Your task to perform on an android device: open app "Flipkart Online Shopping App" (install if not already installed) and enter user name: "fostered@gmail.com" and password: "negotiated" Image 0: 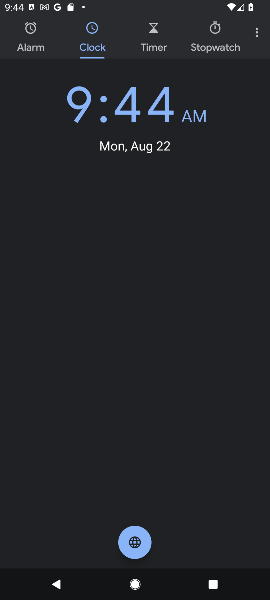
Step 0: press home button
Your task to perform on an android device: open app "Flipkart Online Shopping App" (install if not already installed) and enter user name: "fostered@gmail.com" and password: "negotiated" Image 1: 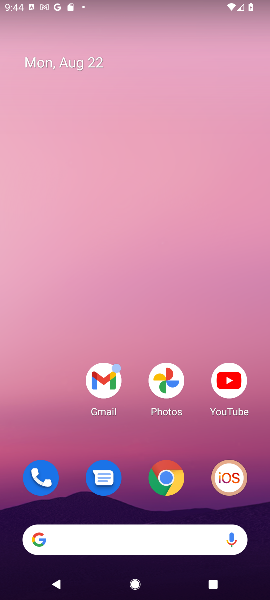
Step 1: drag from (211, 503) to (186, 3)
Your task to perform on an android device: open app "Flipkart Online Shopping App" (install if not already installed) and enter user name: "fostered@gmail.com" and password: "negotiated" Image 2: 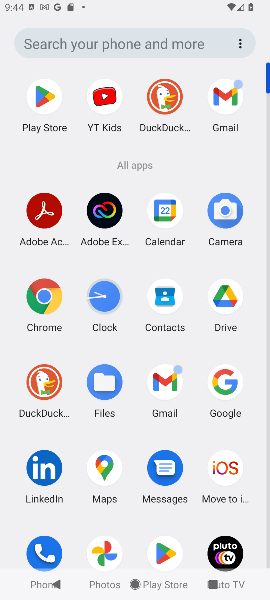
Step 2: click (29, 99)
Your task to perform on an android device: open app "Flipkart Online Shopping App" (install if not already installed) and enter user name: "fostered@gmail.com" and password: "negotiated" Image 3: 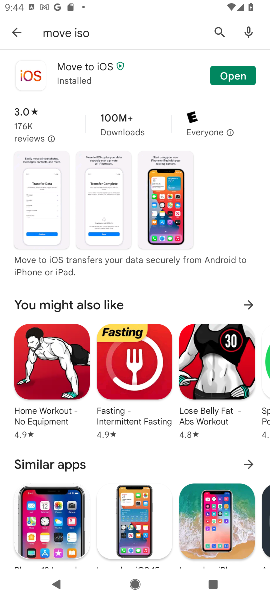
Step 3: click (218, 42)
Your task to perform on an android device: open app "Flipkart Online Shopping App" (install if not already installed) and enter user name: "fostered@gmail.com" and password: "negotiated" Image 4: 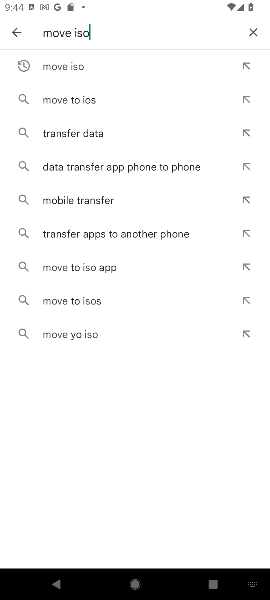
Step 4: click (250, 36)
Your task to perform on an android device: open app "Flipkart Online Shopping App" (install if not already installed) and enter user name: "fostered@gmail.com" and password: "negotiated" Image 5: 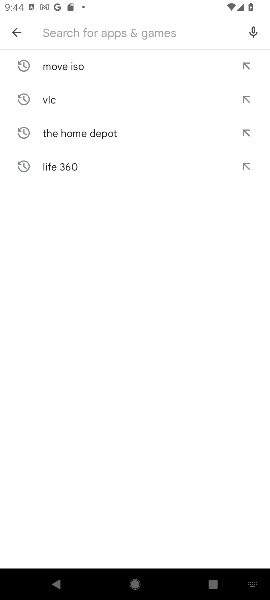
Step 5: type "flipkart"
Your task to perform on an android device: open app "Flipkart Online Shopping App" (install if not already installed) and enter user name: "fostered@gmail.com" and password: "negotiated" Image 6: 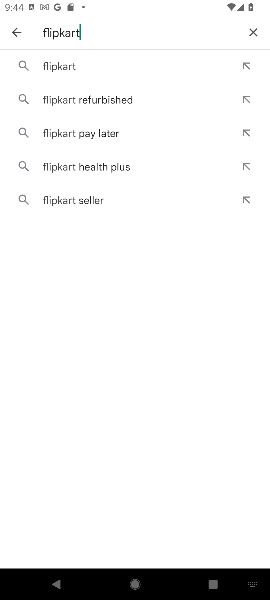
Step 6: click (142, 56)
Your task to perform on an android device: open app "Flipkart Online Shopping App" (install if not already installed) and enter user name: "fostered@gmail.com" and password: "negotiated" Image 7: 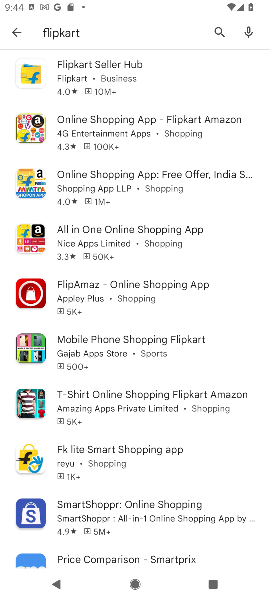
Step 7: click (179, 64)
Your task to perform on an android device: open app "Flipkart Online Shopping App" (install if not already installed) and enter user name: "fostered@gmail.com" and password: "negotiated" Image 8: 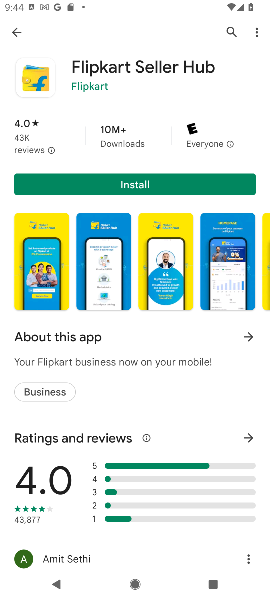
Step 8: task complete